Your task to perform on an android device: change notification settings in the gmail app Image 0: 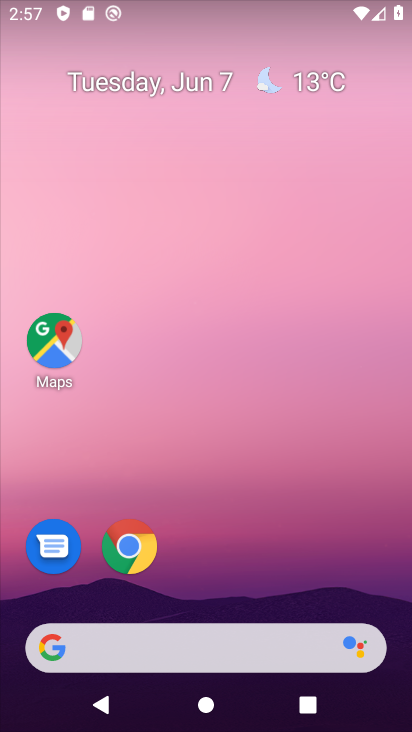
Step 0: drag from (77, 725) to (257, 272)
Your task to perform on an android device: change notification settings in the gmail app Image 1: 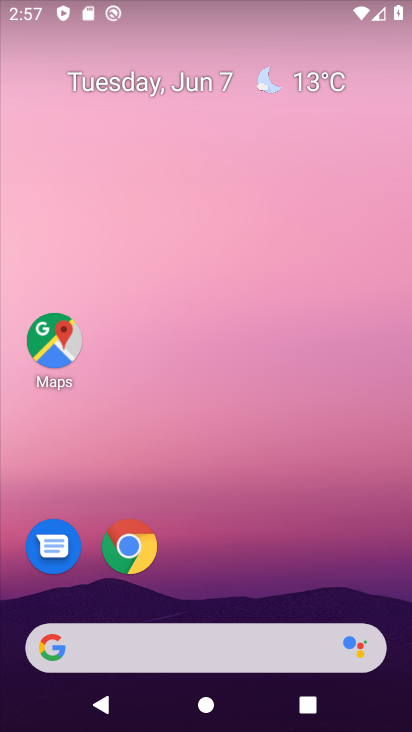
Step 1: drag from (17, 620) to (290, 111)
Your task to perform on an android device: change notification settings in the gmail app Image 2: 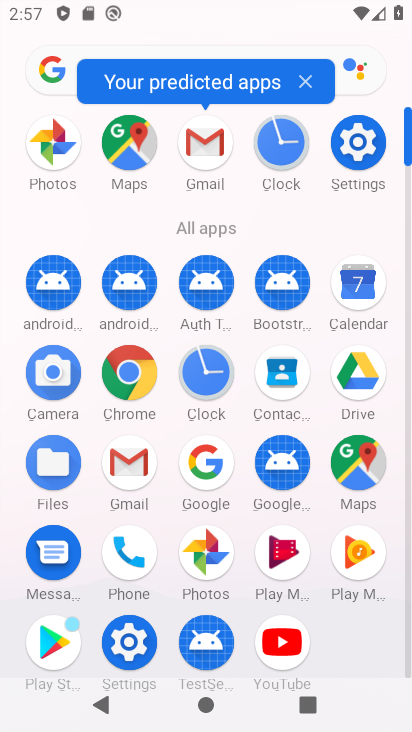
Step 2: click (342, 159)
Your task to perform on an android device: change notification settings in the gmail app Image 3: 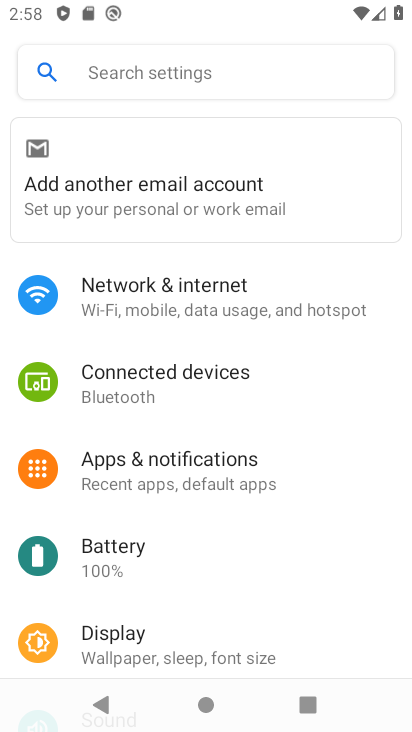
Step 3: click (166, 468)
Your task to perform on an android device: change notification settings in the gmail app Image 4: 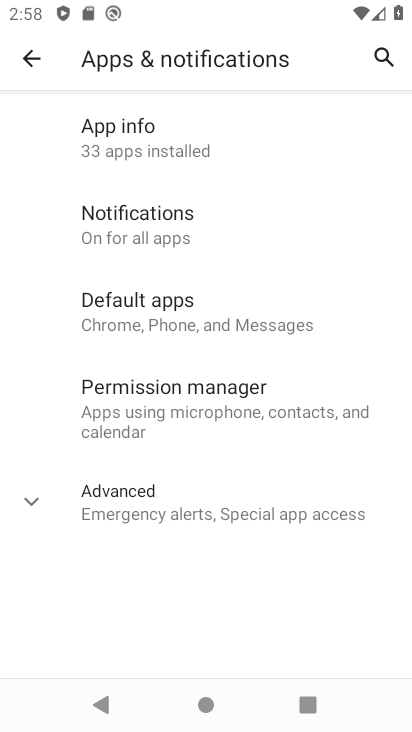
Step 4: press home button
Your task to perform on an android device: change notification settings in the gmail app Image 5: 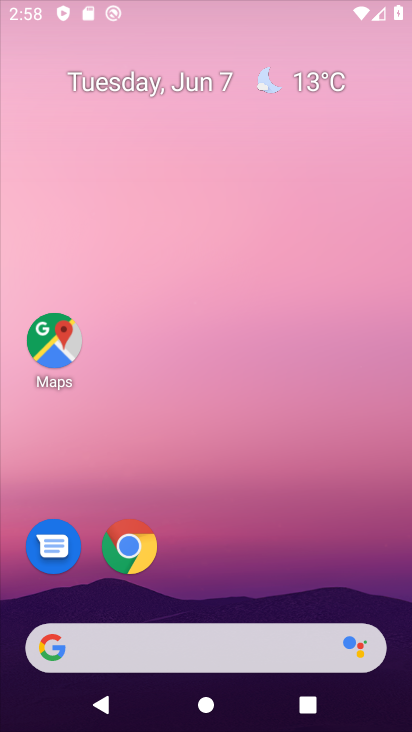
Step 5: drag from (27, 593) to (338, 123)
Your task to perform on an android device: change notification settings in the gmail app Image 6: 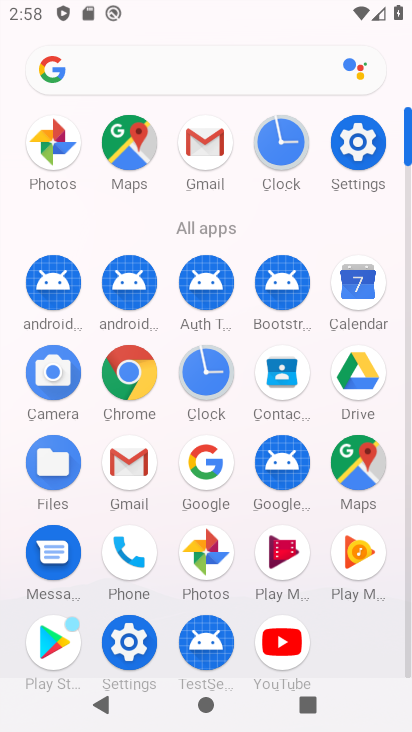
Step 6: click (150, 461)
Your task to perform on an android device: change notification settings in the gmail app Image 7: 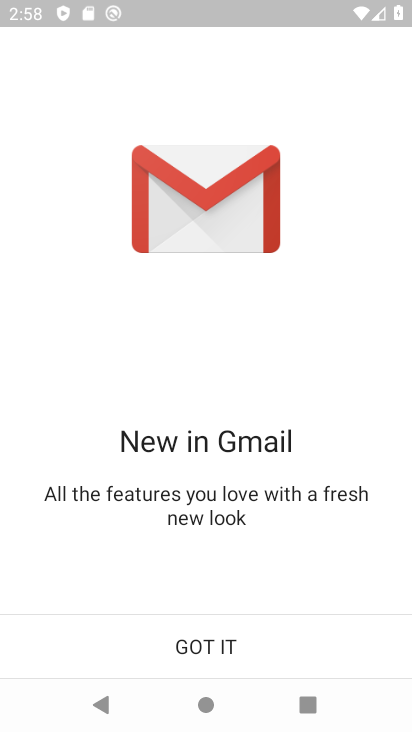
Step 7: click (182, 641)
Your task to perform on an android device: change notification settings in the gmail app Image 8: 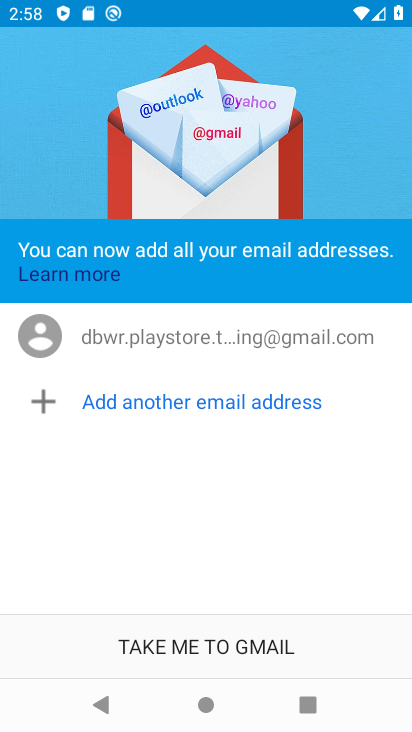
Step 8: click (310, 621)
Your task to perform on an android device: change notification settings in the gmail app Image 9: 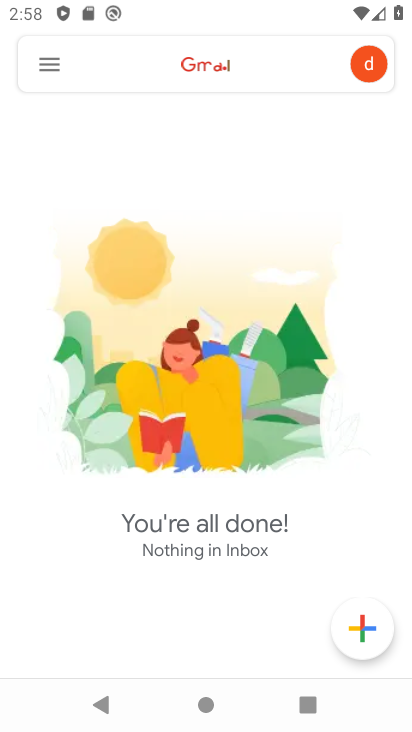
Step 9: click (43, 69)
Your task to perform on an android device: change notification settings in the gmail app Image 10: 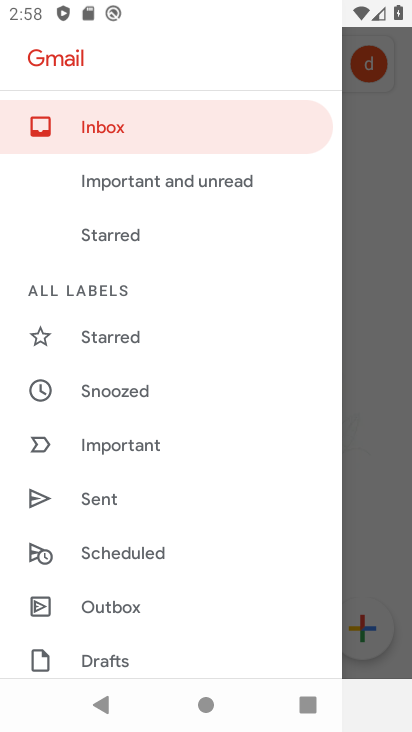
Step 10: drag from (47, 448) to (214, 142)
Your task to perform on an android device: change notification settings in the gmail app Image 11: 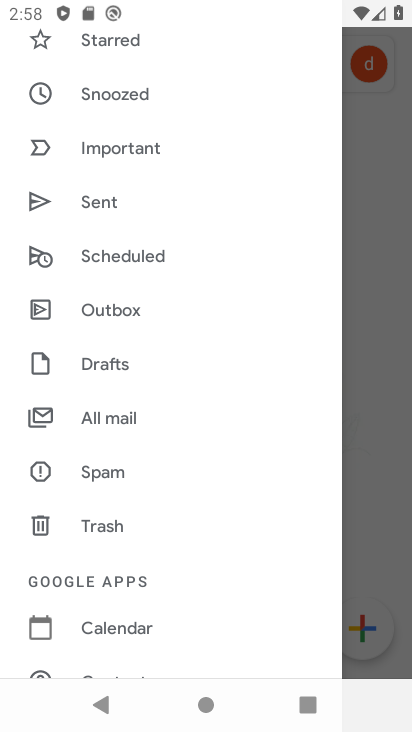
Step 11: drag from (56, 416) to (139, 205)
Your task to perform on an android device: change notification settings in the gmail app Image 12: 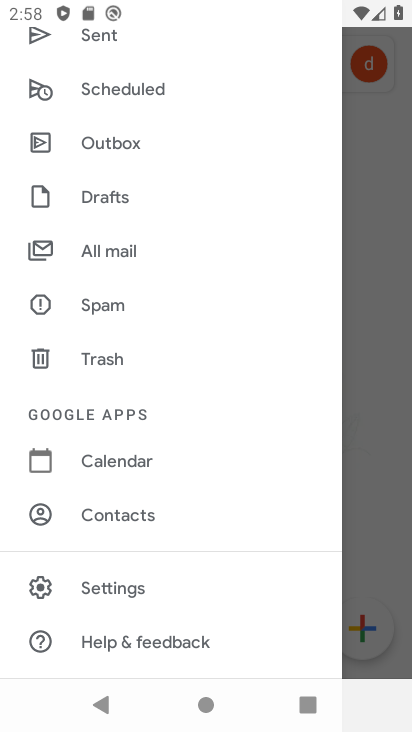
Step 12: click (114, 568)
Your task to perform on an android device: change notification settings in the gmail app Image 13: 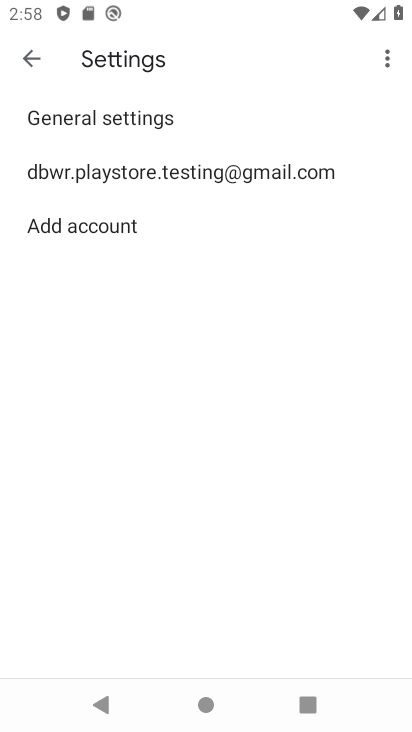
Step 13: click (117, 177)
Your task to perform on an android device: change notification settings in the gmail app Image 14: 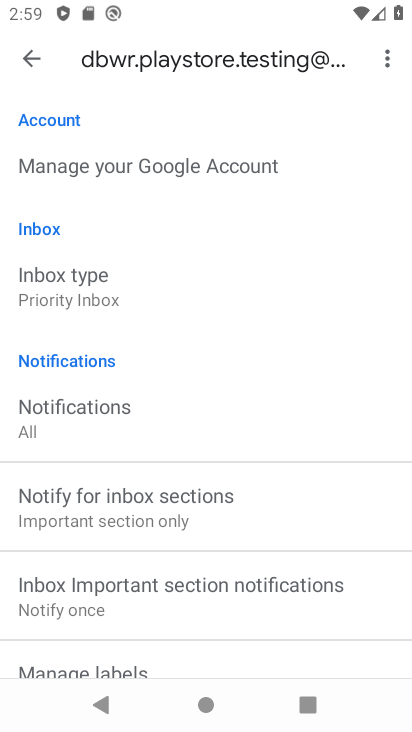
Step 14: task complete